Your task to perform on an android device: check out phone information Image 0: 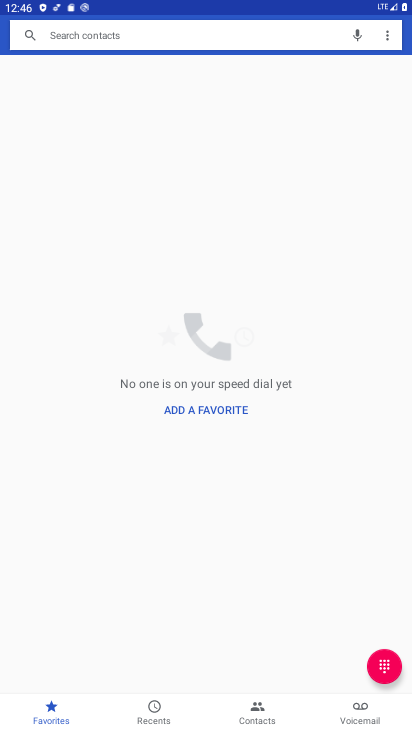
Step 0: press home button
Your task to perform on an android device: check out phone information Image 1: 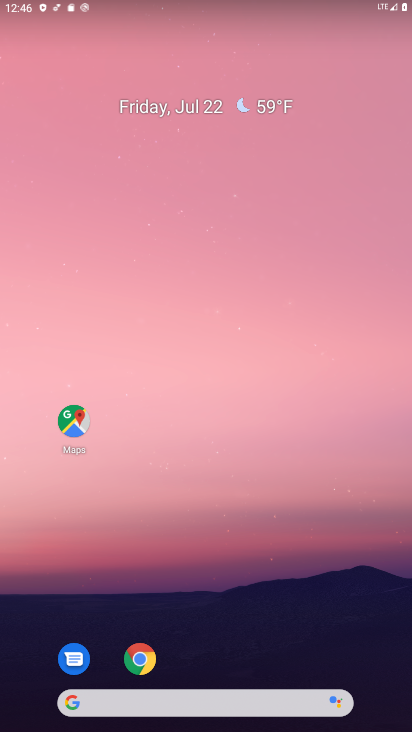
Step 1: drag from (251, 639) to (268, 207)
Your task to perform on an android device: check out phone information Image 2: 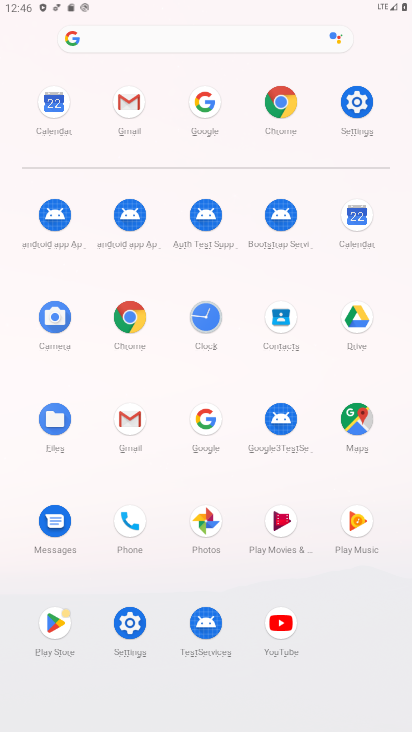
Step 2: click (354, 90)
Your task to perform on an android device: check out phone information Image 3: 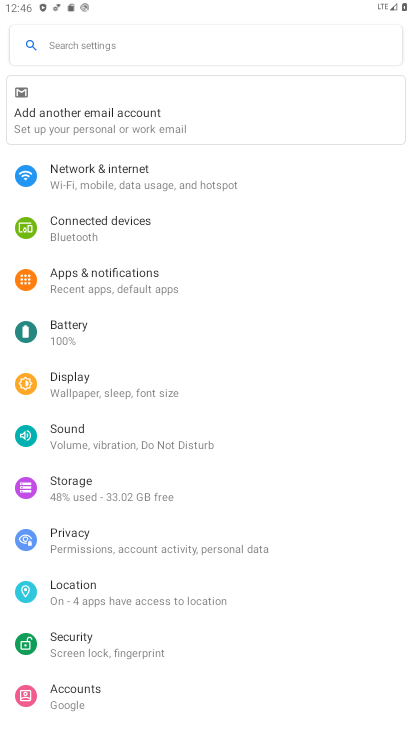
Step 3: drag from (230, 652) to (244, 96)
Your task to perform on an android device: check out phone information Image 4: 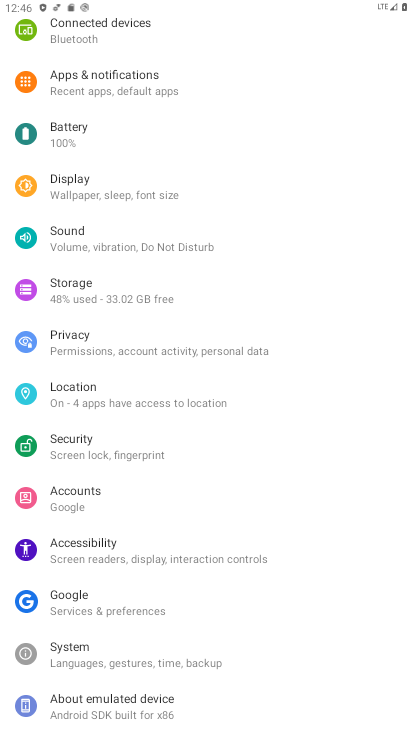
Step 4: drag from (181, 684) to (192, 263)
Your task to perform on an android device: check out phone information Image 5: 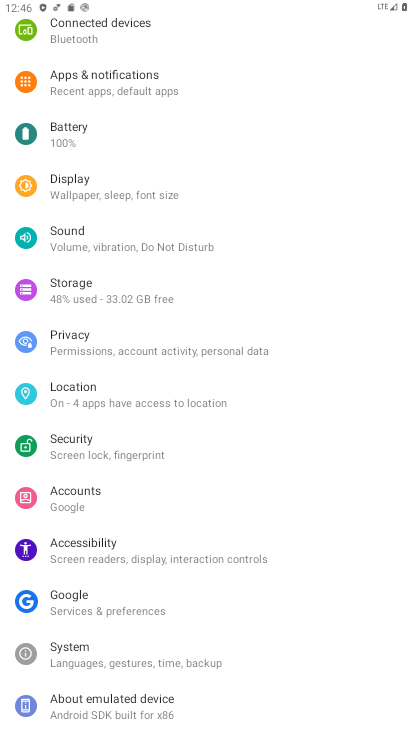
Step 5: click (104, 721)
Your task to perform on an android device: check out phone information Image 6: 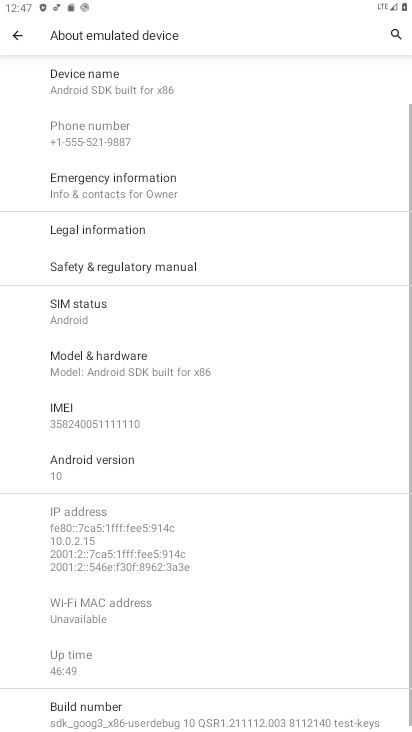
Step 6: task complete